Your task to perform on an android device: move a message to another label in the gmail app Image 0: 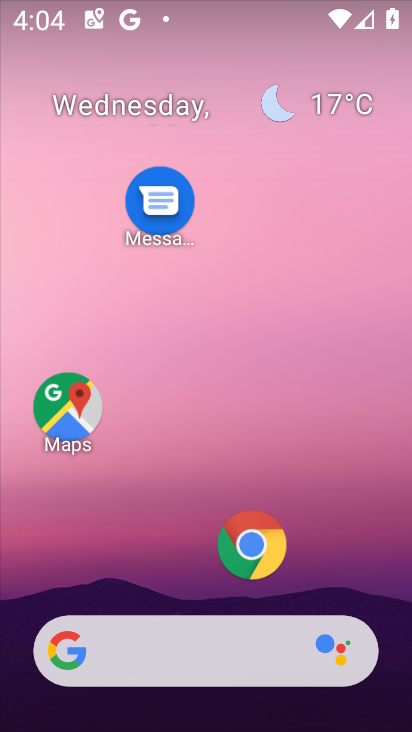
Step 0: drag from (317, 548) to (328, 117)
Your task to perform on an android device: move a message to another label in the gmail app Image 1: 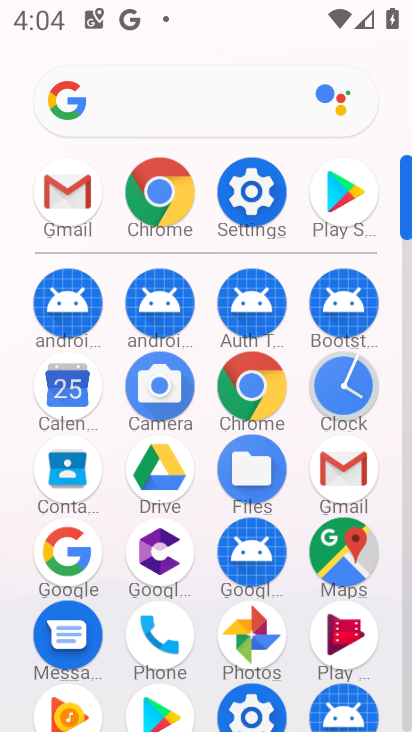
Step 1: click (353, 494)
Your task to perform on an android device: move a message to another label in the gmail app Image 2: 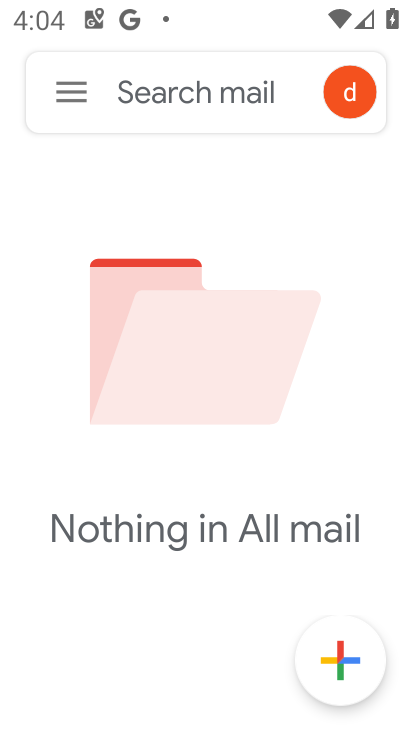
Step 2: task complete